Your task to perform on an android device: Go to privacy settings Image 0: 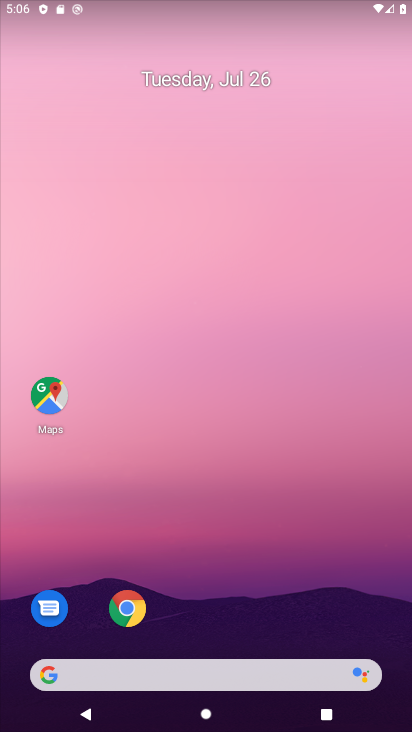
Step 0: drag from (308, 618) to (203, 0)
Your task to perform on an android device: Go to privacy settings Image 1: 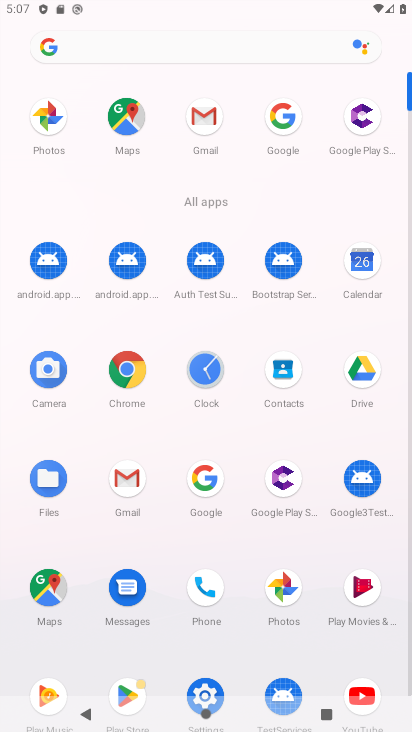
Step 1: click (207, 688)
Your task to perform on an android device: Go to privacy settings Image 2: 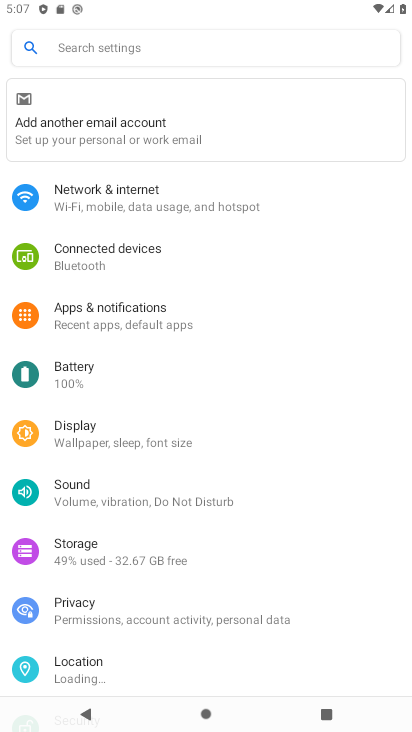
Step 2: click (100, 602)
Your task to perform on an android device: Go to privacy settings Image 3: 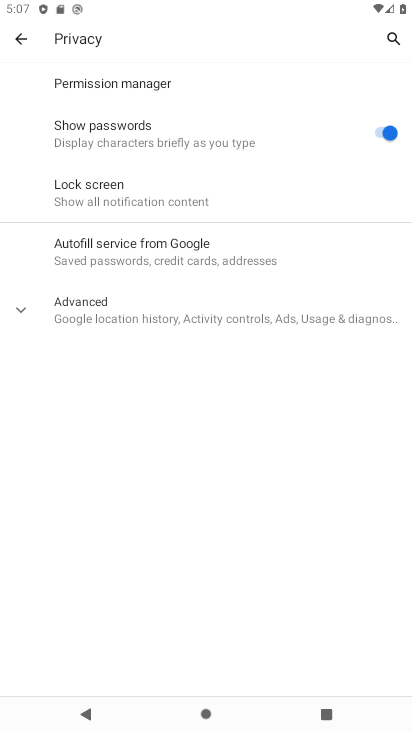
Step 3: task complete